Your task to perform on an android device: Clear all items from cart on ebay. Search for "razer nari" on ebay, select the first entry, add it to the cart, then select checkout. Image 0: 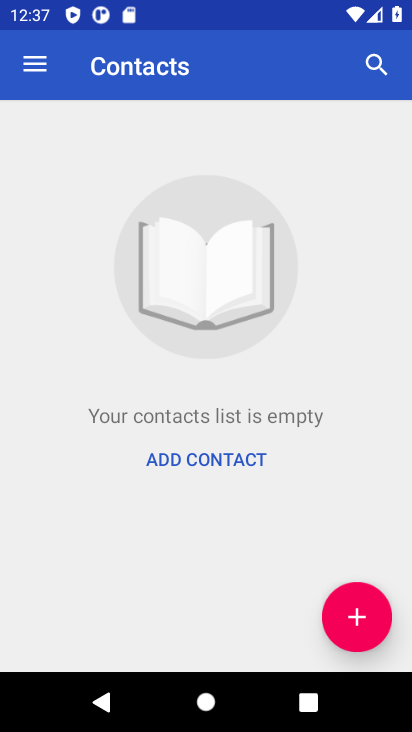
Step 0: press home button
Your task to perform on an android device: Clear all items from cart on ebay. Search for "razer nari" on ebay, select the first entry, add it to the cart, then select checkout. Image 1: 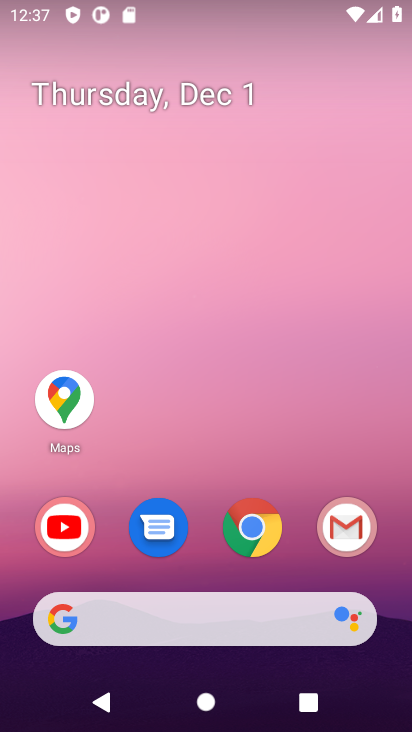
Step 1: click (261, 528)
Your task to perform on an android device: Clear all items from cart on ebay. Search for "razer nari" on ebay, select the first entry, add it to the cart, then select checkout. Image 2: 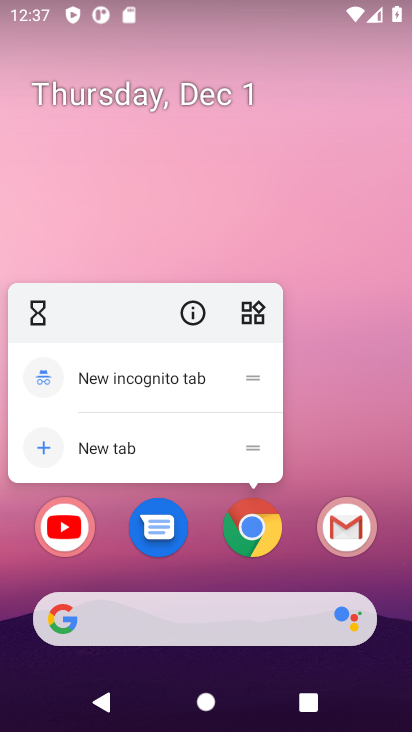
Step 2: click (245, 528)
Your task to perform on an android device: Clear all items from cart on ebay. Search for "razer nari" on ebay, select the first entry, add it to the cart, then select checkout. Image 3: 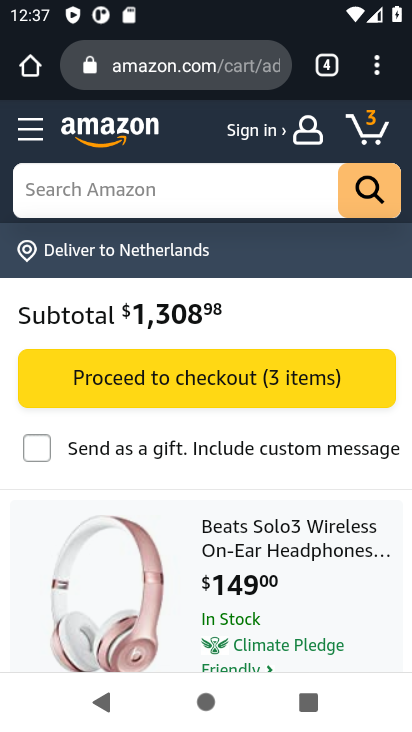
Step 3: click (199, 71)
Your task to perform on an android device: Clear all items from cart on ebay. Search for "razer nari" on ebay, select the first entry, add it to the cart, then select checkout. Image 4: 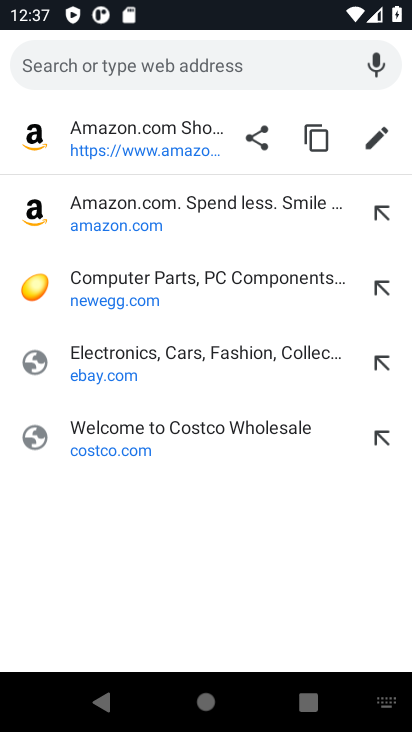
Step 4: click (94, 361)
Your task to perform on an android device: Clear all items from cart on ebay. Search for "razer nari" on ebay, select the first entry, add it to the cart, then select checkout. Image 5: 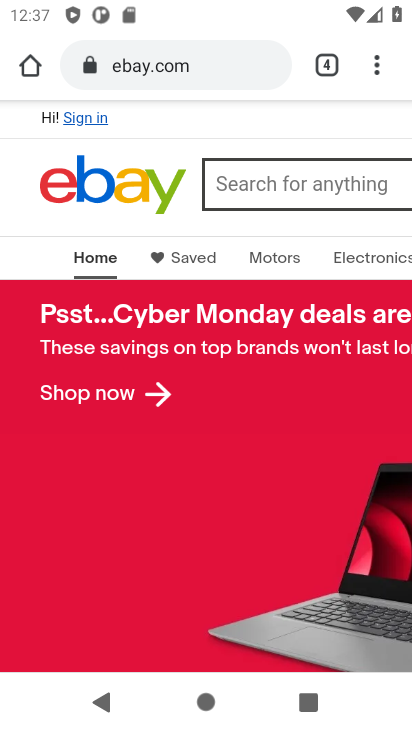
Step 5: drag from (280, 218) to (6, 197)
Your task to perform on an android device: Clear all items from cart on ebay. Search for "razer nari" on ebay, select the first entry, add it to the cart, then select checkout. Image 6: 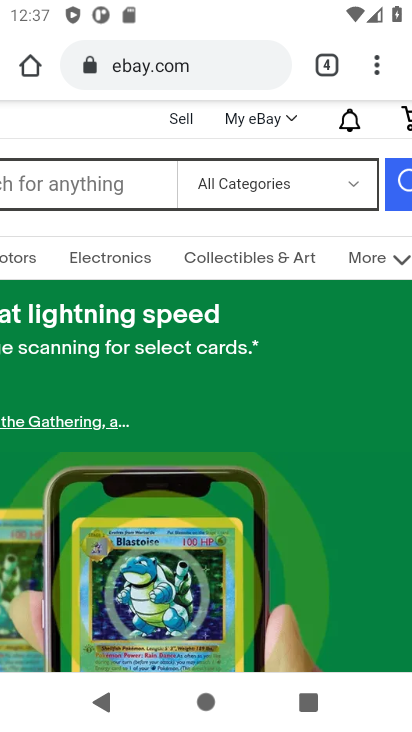
Step 6: drag from (172, 224) to (40, 174)
Your task to perform on an android device: Clear all items from cart on ebay. Search for "razer nari" on ebay, select the first entry, add it to the cart, then select checkout. Image 7: 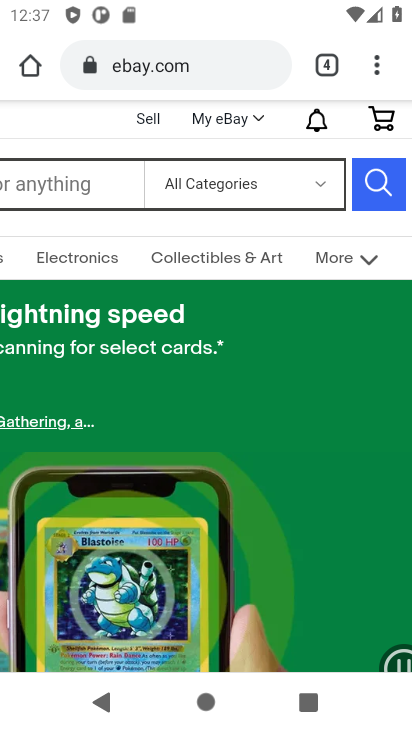
Step 7: click (346, 130)
Your task to perform on an android device: Clear all items from cart on ebay. Search for "razer nari" on ebay, select the first entry, add it to the cart, then select checkout. Image 8: 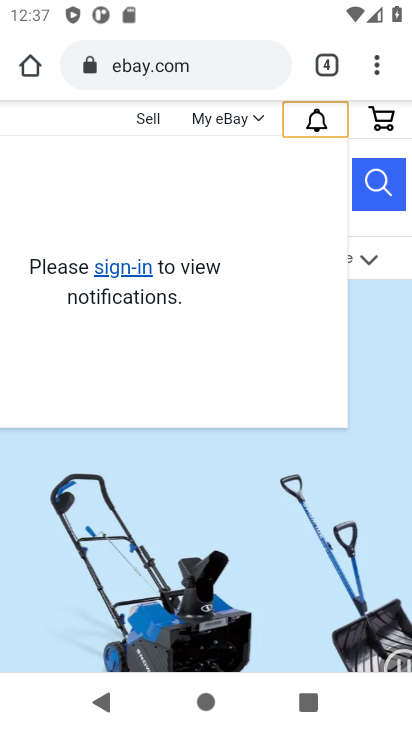
Step 8: click (377, 121)
Your task to perform on an android device: Clear all items from cart on ebay. Search for "razer nari" on ebay, select the first entry, add it to the cart, then select checkout. Image 9: 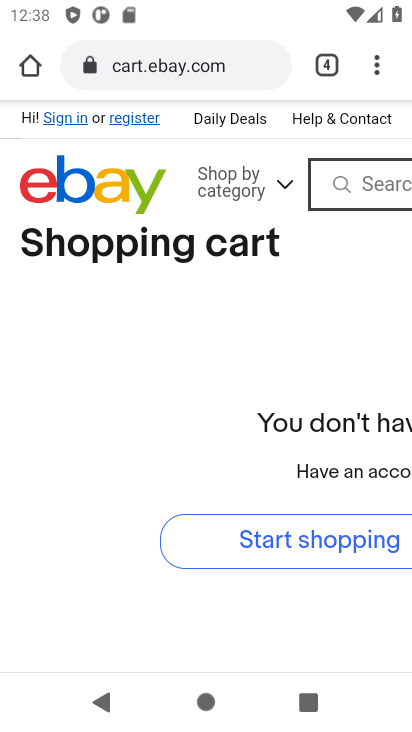
Step 9: drag from (220, 422) to (93, 417)
Your task to perform on an android device: Clear all items from cart on ebay. Search for "razer nari" on ebay, select the first entry, add it to the cart, then select checkout. Image 10: 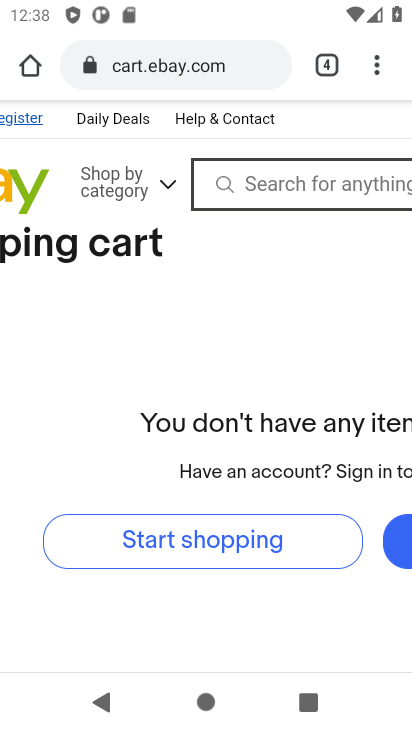
Step 10: click (263, 179)
Your task to perform on an android device: Clear all items from cart on ebay. Search for "razer nari" on ebay, select the first entry, add it to the cart, then select checkout. Image 11: 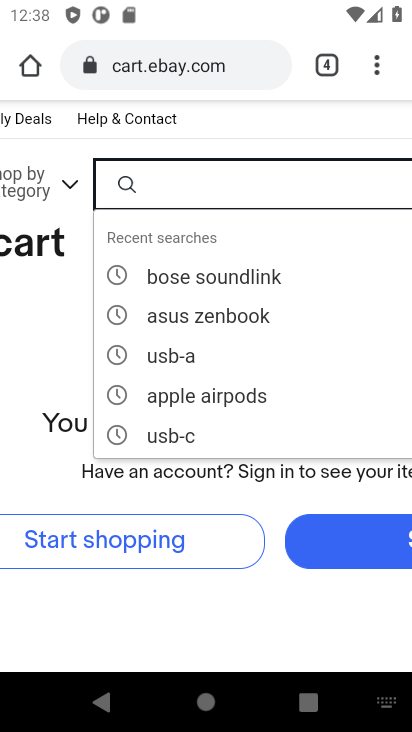
Step 11: type "razer nari"
Your task to perform on an android device: Clear all items from cart on ebay. Search for "razer nari" on ebay, select the first entry, add it to the cart, then select checkout. Image 12: 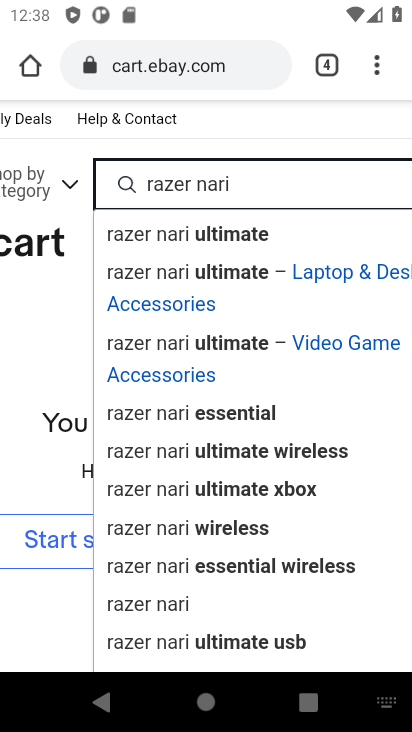
Step 12: click (126, 606)
Your task to perform on an android device: Clear all items from cart on ebay. Search for "razer nari" on ebay, select the first entry, add it to the cart, then select checkout. Image 13: 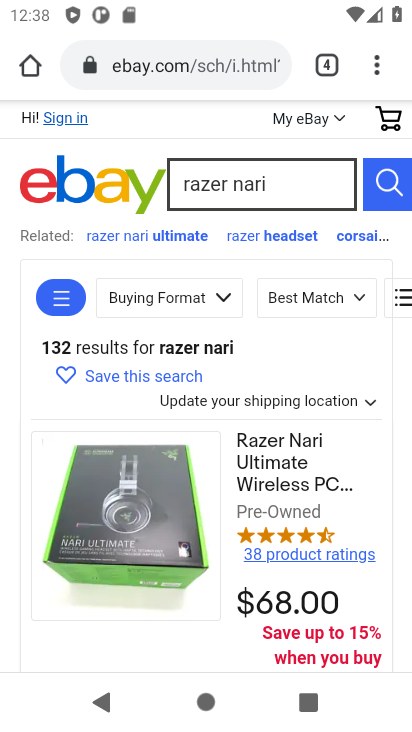
Step 13: click (263, 497)
Your task to perform on an android device: Clear all items from cart on ebay. Search for "razer nari" on ebay, select the first entry, add it to the cart, then select checkout. Image 14: 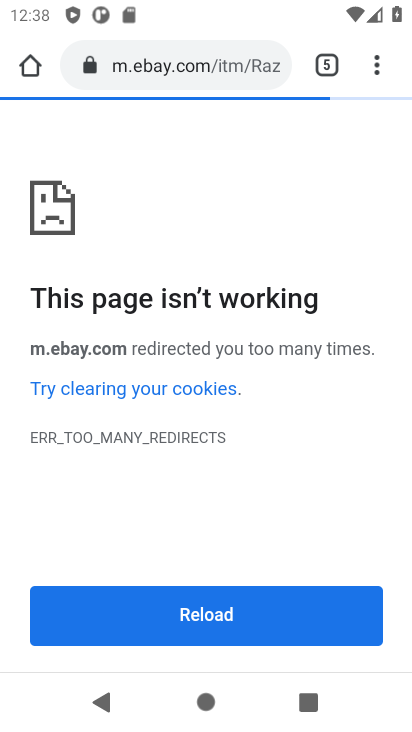
Step 14: task complete